Your task to perform on an android device: turn on wifi Image 0: 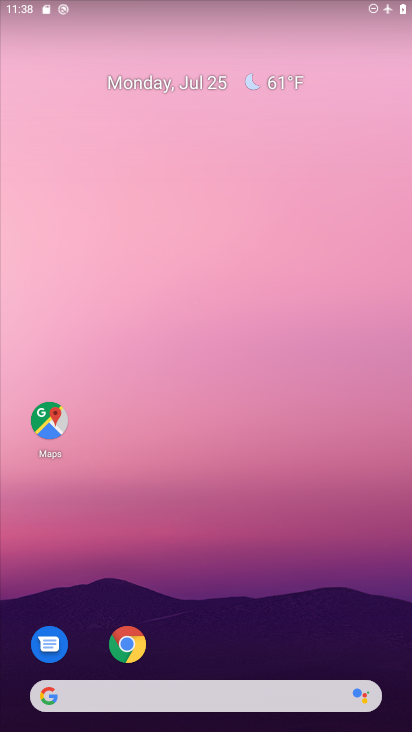
Step 0: drag from (239, 579) to (228, 246)
Your task to perform on an android device: turn on wifi Image 1: 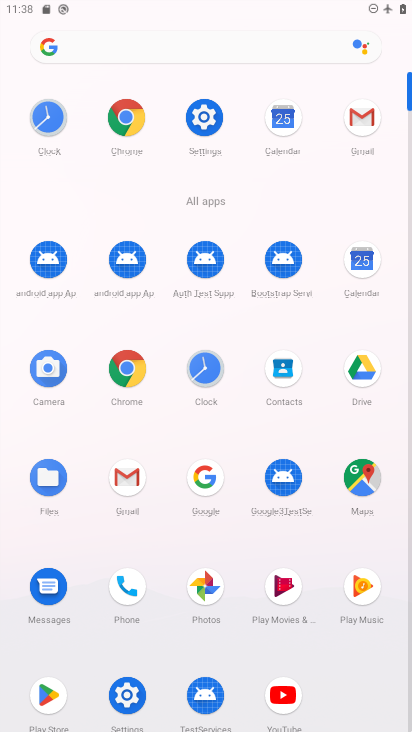
Step 1: click (208, 104)
Your task to perform on an android device: turn on wifi Image 2: 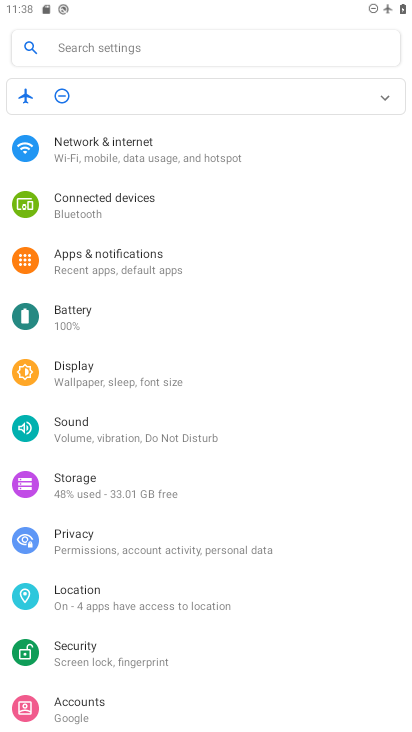
Step 2: click (102, 141)
Your task to perform on an android device: turn on wifi Image 3: 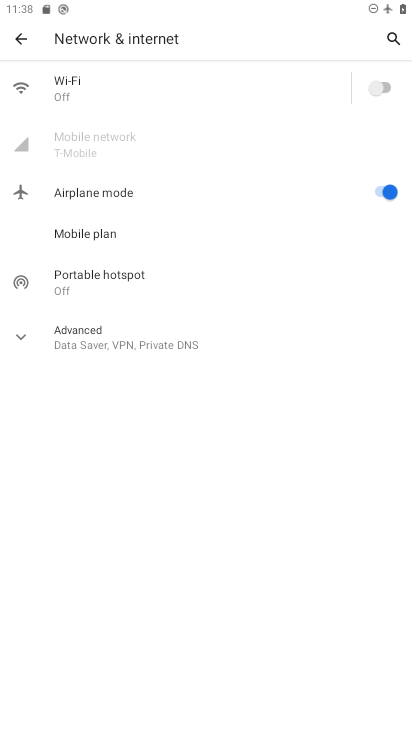
Step 3: click (367, 95)
Your task to perform on an android device: turn on wifi Image 4: 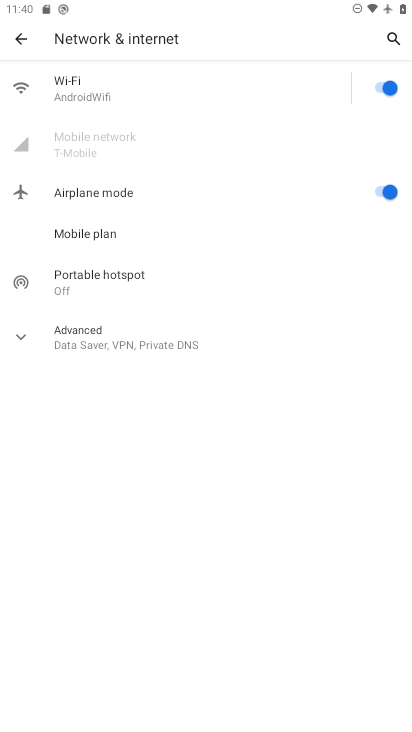
Step 4: task complete